Your task to perform on an android device: see tabs open on other devices in the chrome app Image 0: 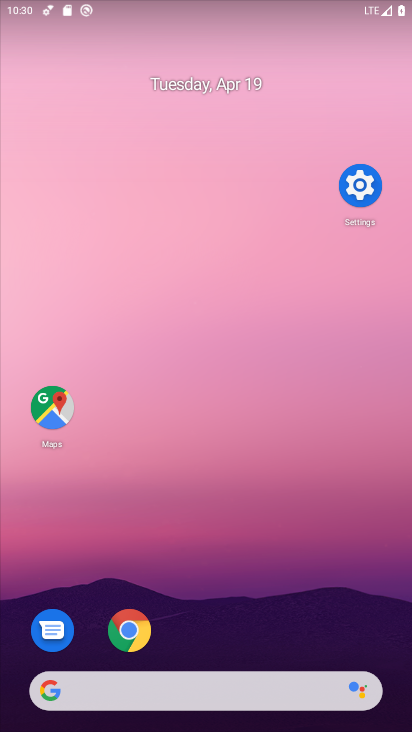
Step 0: drag from (223, 484) to (223, 269)
Your task to perform on an android device: see tabs open on other devices in the chrome app Image 1: 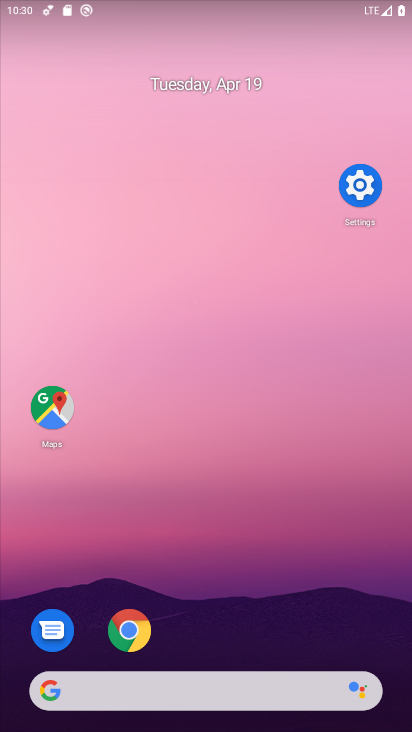
Step 1: click (132, 631)
Your task to perform on an android device: see tabs open on other devices in the chrome app Image 2: 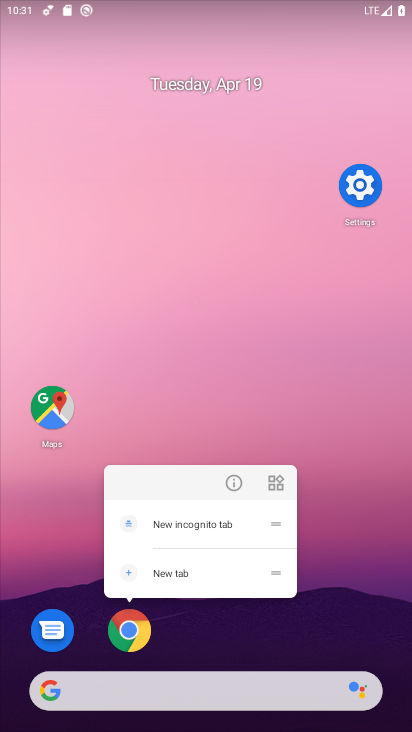
Step 2: click (132, 631)
Your task to perform on an android device: see tabs open on other devices in the chrome app Image 3: 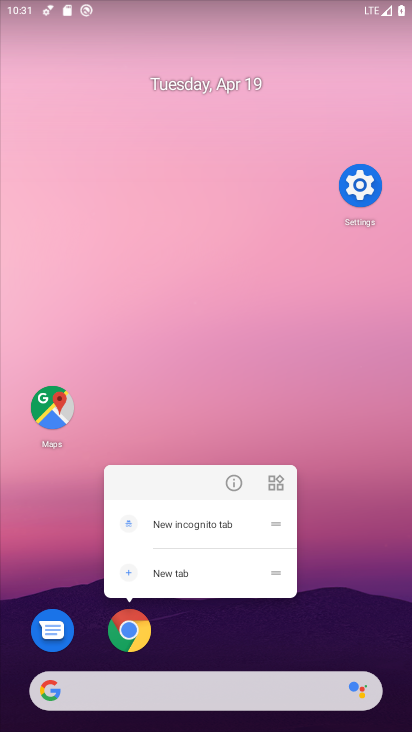
Step 3: click (132, 632)
Your task to perform on an android device: see tabs open on other devices in the chrome app Image 4: 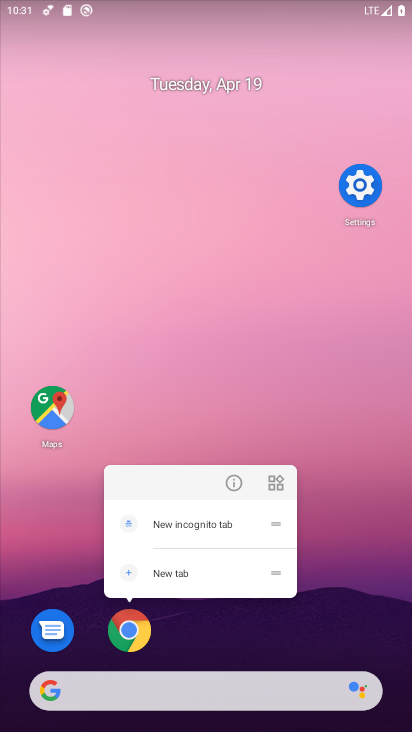
Step 4: click (129, 645)
Your task to perform on an android device: see tabs open on other devices in the chrome app Image 5: 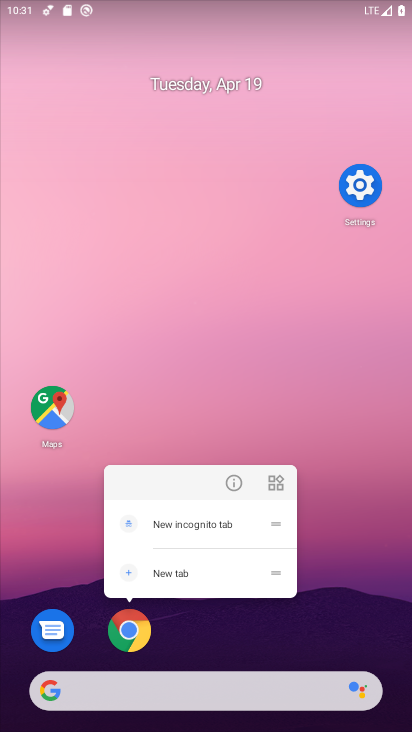
Step 5: click (129, 622)
Your task to perform on an android device: see tabs open on other devices in the chrome app Image 6: 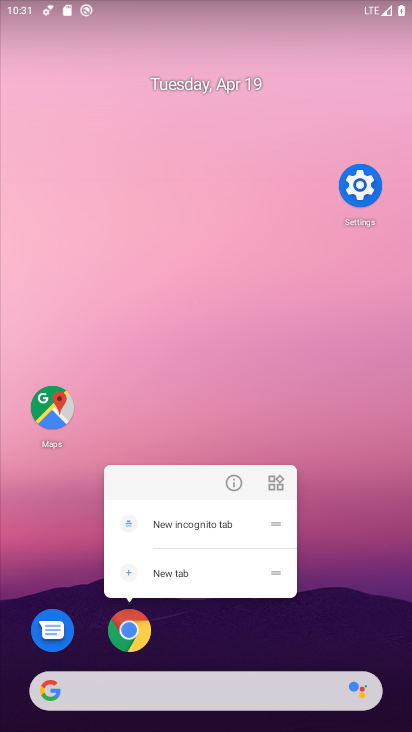
Step 6: click (132, 638)
Your task to perform on an android device: see tabs open on other devices in the chrome app Image 7: 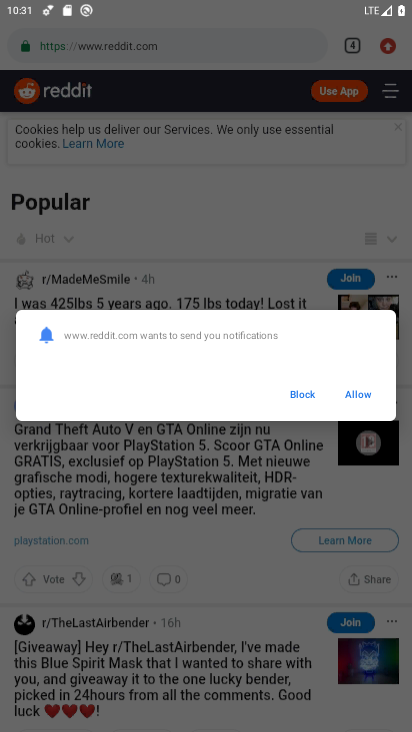
Step 7: click (306, 395)
Your task to perform on an android device: see tabs open on other devices in the chrome app Image 8: 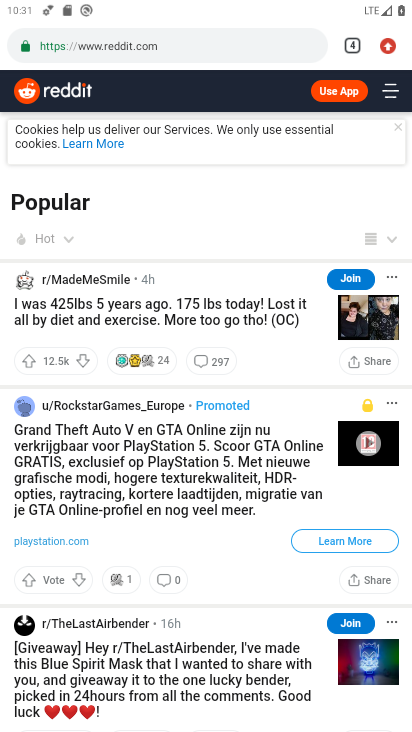
Step 8: task complete